Your task to perform on an android device: turn off priority inbox in the gmail app Image 0: 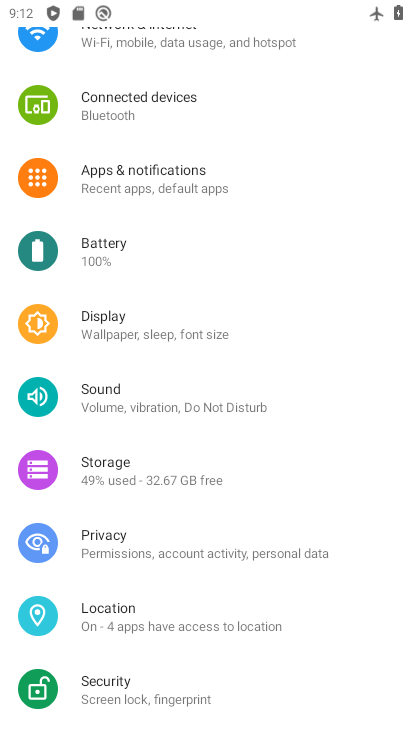
Step 0: press home button
Your task to perform on an android device: turn off priority inbox in the gmail app Image 1: 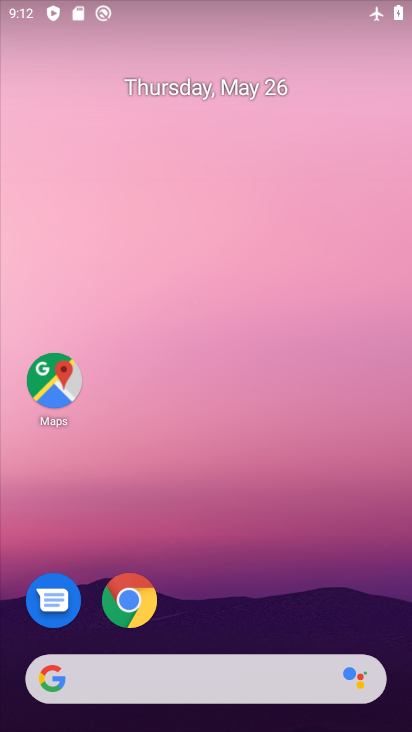
Step 1: drag from (310, 552) to (257, 140)
Your task to perform on an android device: turn off priority inbox in the gmail app Image 2: 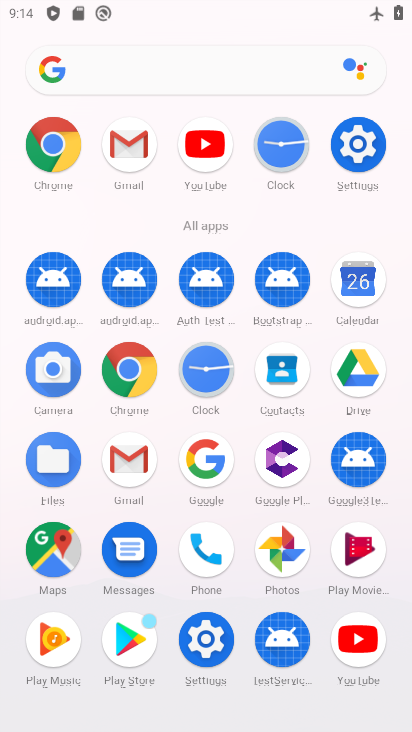
Step 2: click (137, 137)
Your task to perform on an android device: turn off priority inbox in the gmail app Image 3: 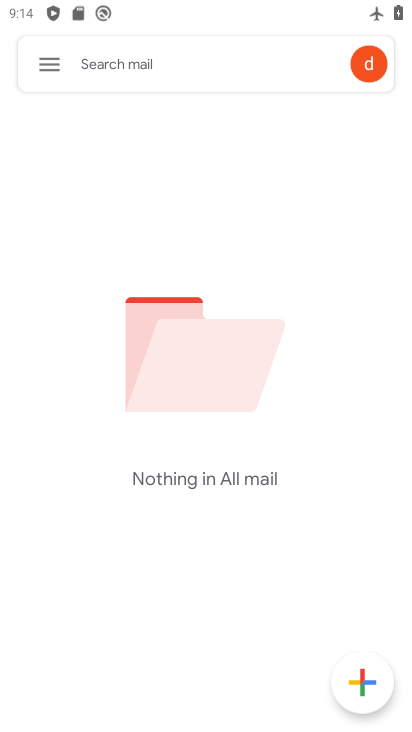
Step 3: click (47, 49)
Your task to perform on an android device: turn off priority inbox in the gmail app Image 4: 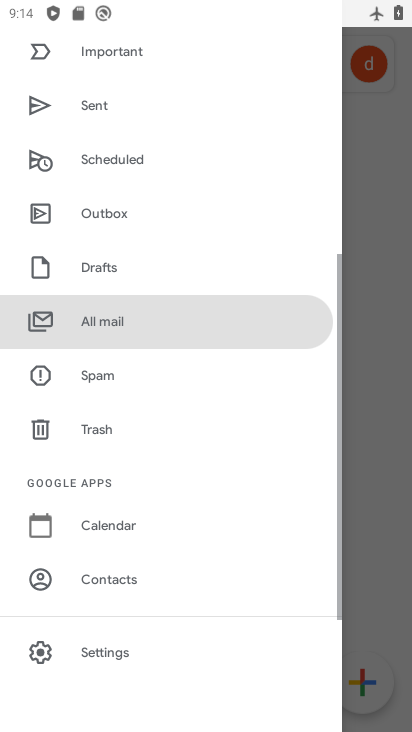
Step 4: click (99, 653)
Your task to perform on an android device: turn off priority inbox in the gmail app Image 5: 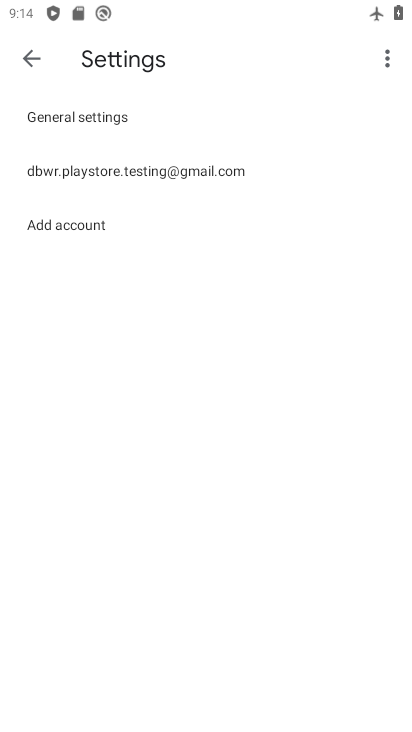
Step 5: click (149, 191)
Your task to perform on an android device: turn off priority inbox in the gmail app Image 6: 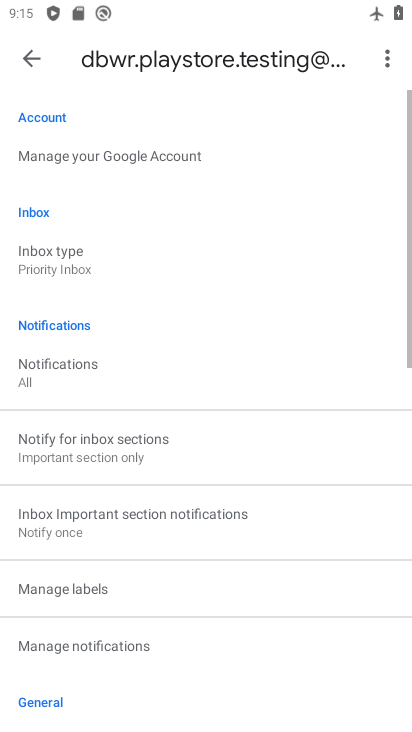
Step 6: click (80, 271)
Your task to perform on an android device: turn off priority inbox in the gmail app Image 7: 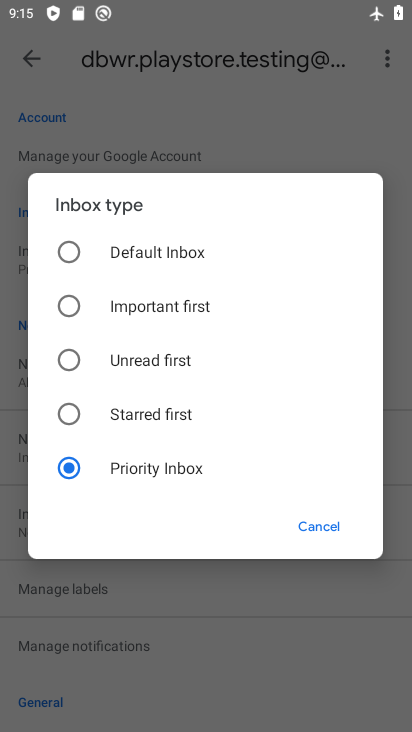
Step 7: task complete